Your task to perform on an android device: change text size in settings app Image 0: 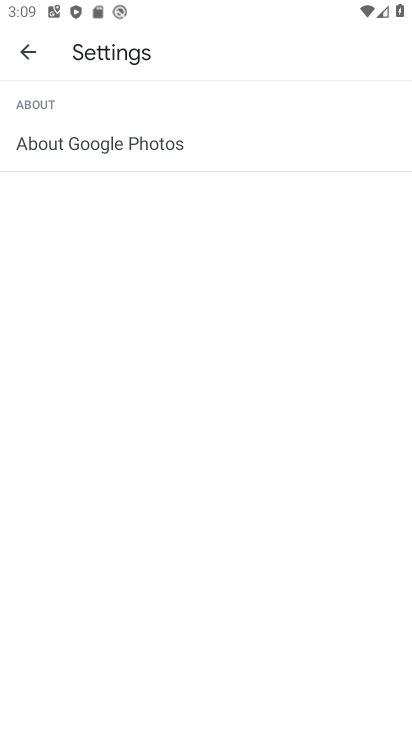
Step 0: press home button
Your task to perform on an android device: change text size in settings app Image 1: 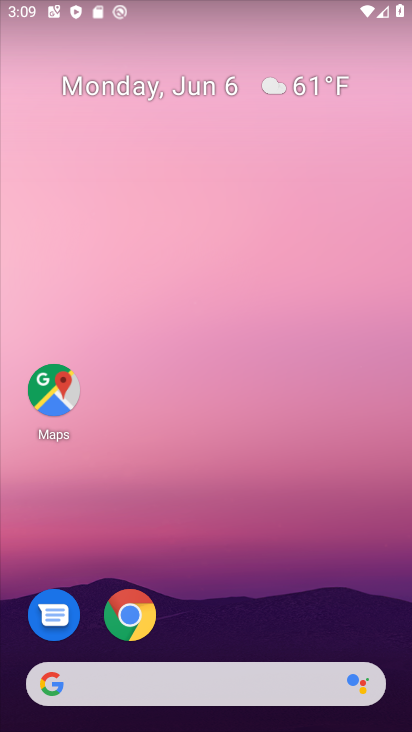
Step 1: drag from (215, 666) to (227, 73)
Your task to perform on an android device: change text size in settings app Image 2: 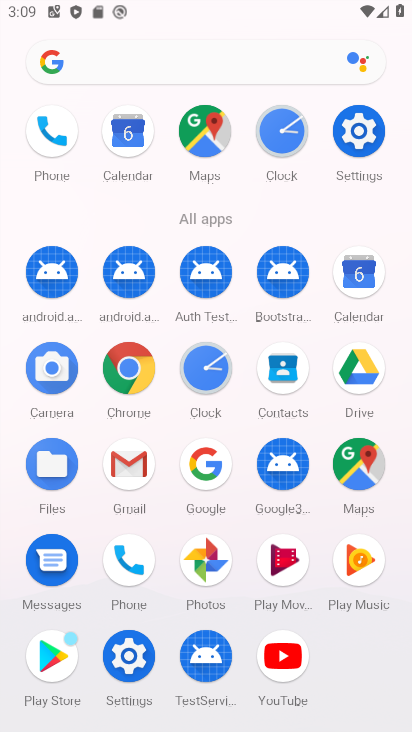
Step 2: click (135, 676)
Your task to perform on an android device: change text size in settings app Image 3: 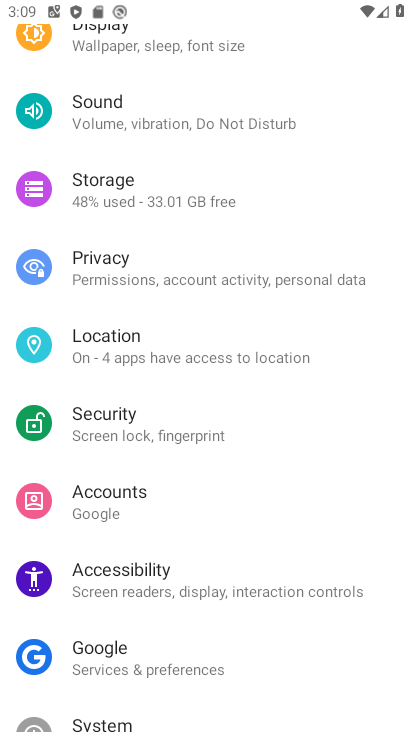
Step 3: drag from (151, 124) to (164, 430)
Your task to perform on an android device: change text size in settings app Image 4: 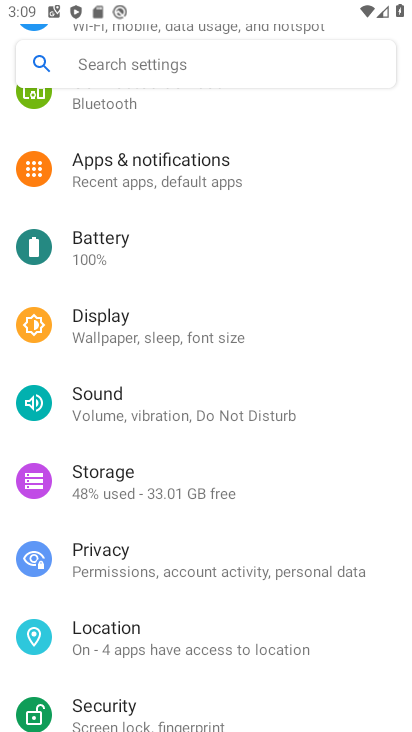
Step 4: click (137, 313)
Your task to perform on an android device: change text size in settings app Image 5: 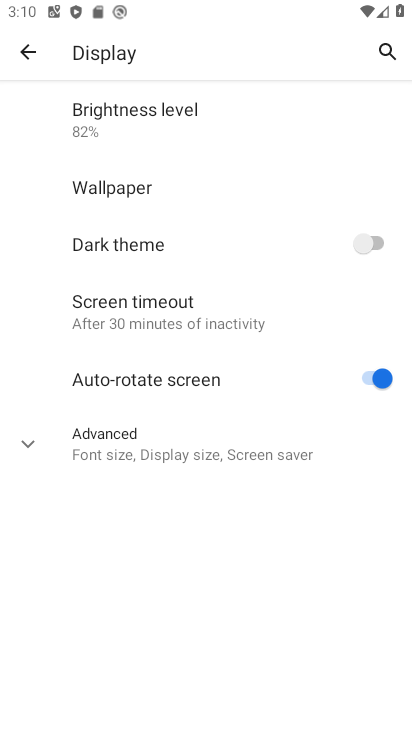
Step 5: click (105, 454)
Your task to perform on an android device: change text size in settings app Image 6: 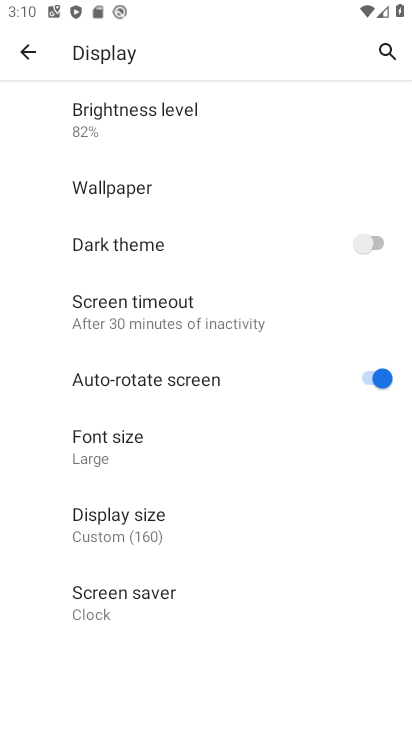
Step 6: click (135, 535)
Your task to perform on an android device: change text size in settings app Image 7: 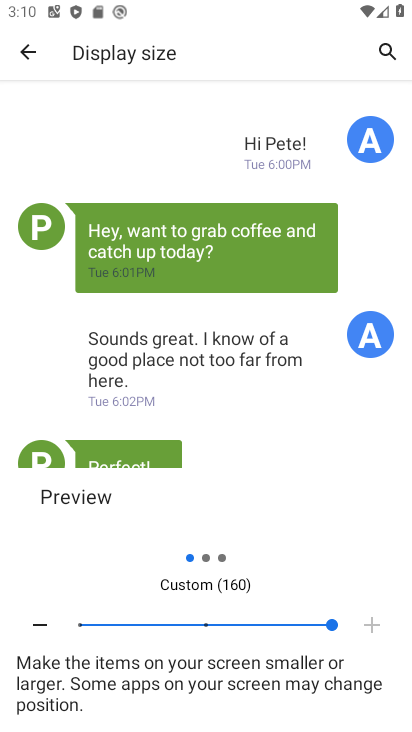
Step 7: click (200, 623)
Your task to perform on an android device: change text size in settings app Image 8: 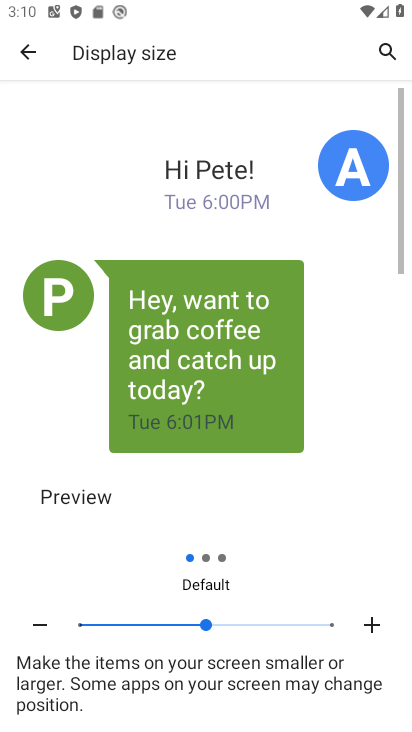
Step 8: task complete